Your task to perform on an android device: Go to network settings Image 0: 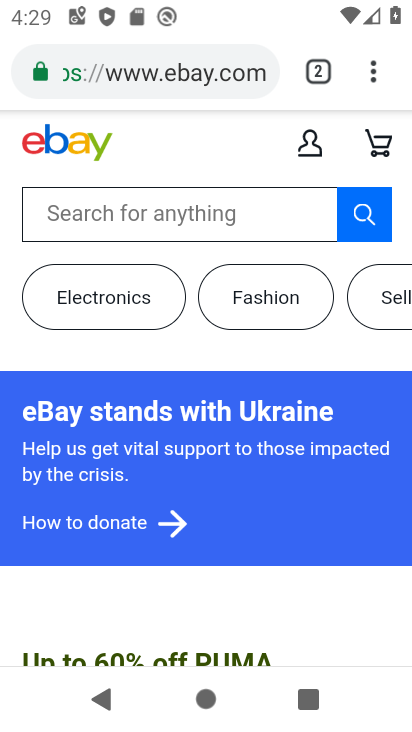
Step 0: press home button
Your task to perform on an android device: Go to network settings Image 1: 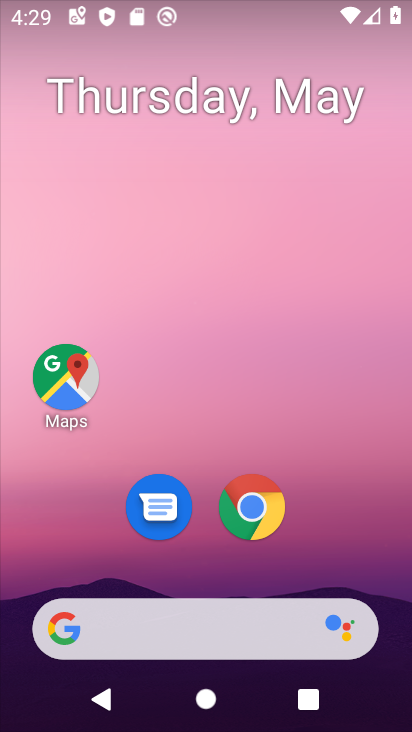
Step 1: drag from (209, 565) to (245, 68)
Your task to perform on an android device: Go to network settings Image 2: 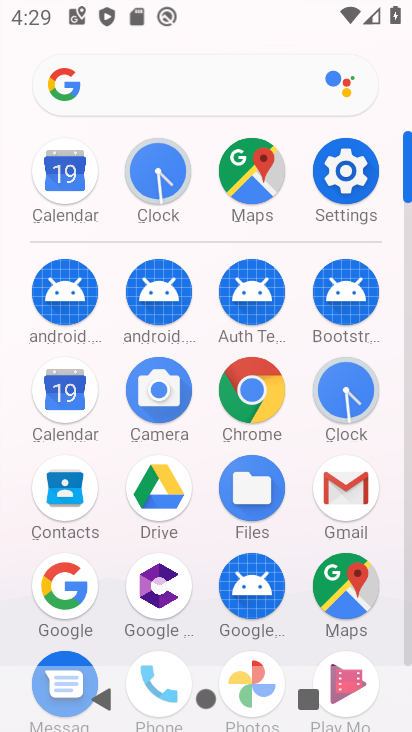
Step 2: click (345, 172)
Your task to perform on an android device: Go to network settings Image 3: 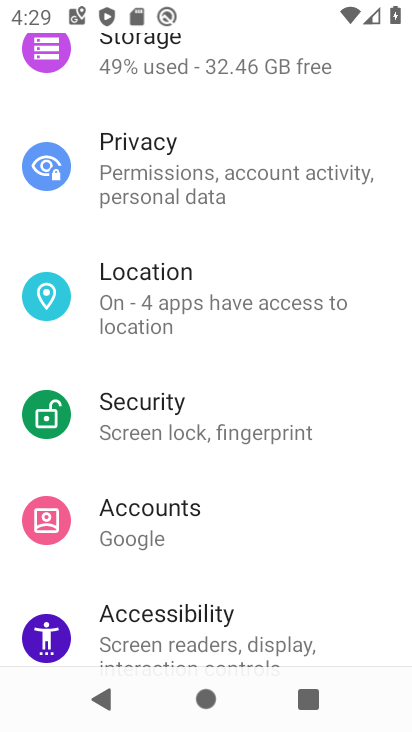
Step 3: drag from (227, 259) to (259, 609)
Your task to perform on an android device: Go to network settings Image 4: 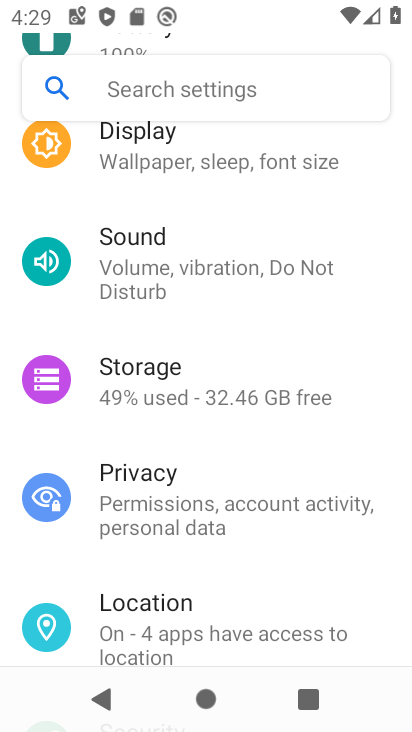
Step 4: drag from (290, 251) to (235, 624)
Your task to perform on an android device: Go to network settings Image 5: 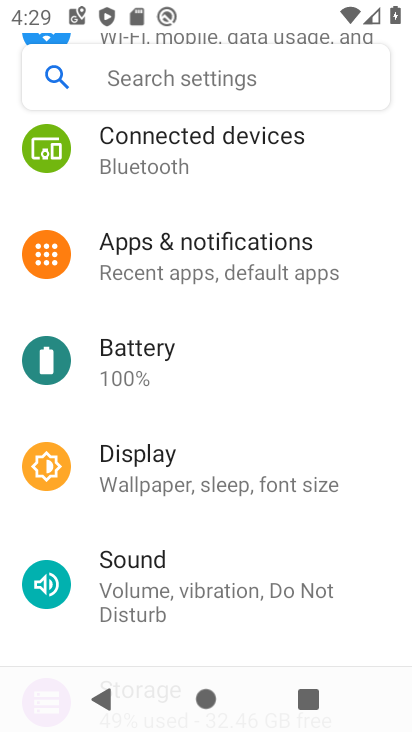
Step 5: drag from (241, 225) to (268, 599)
Your task to perform on an android device: Go to network settings Image 6: 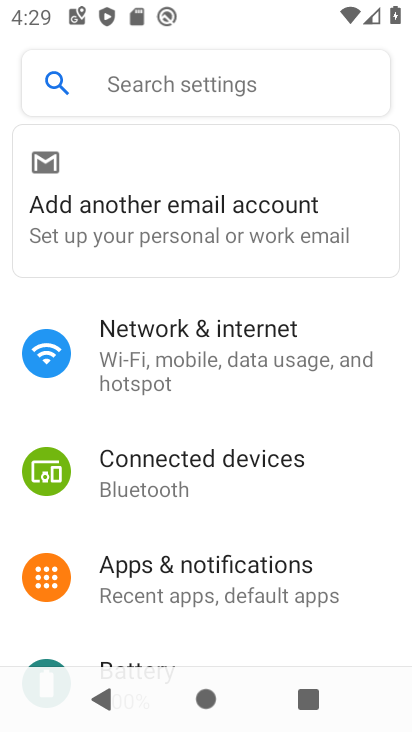
Step 6: click (182, 328)
Your task to perform on an android device: Go to network settings Image 7: 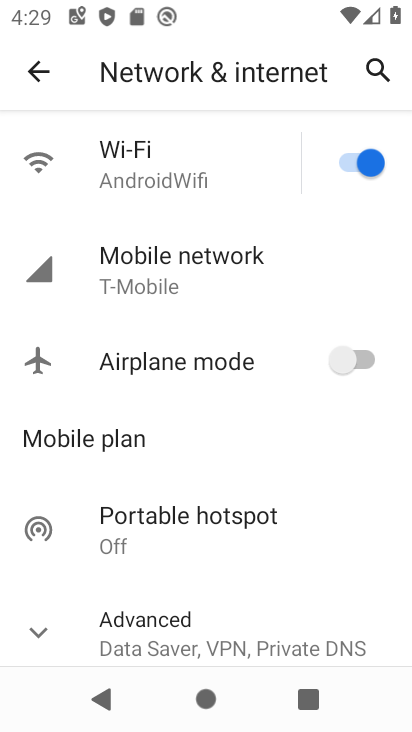
Step 7: click (197, 295)
Your task to perform on an android device: Go to network settings Image 8: 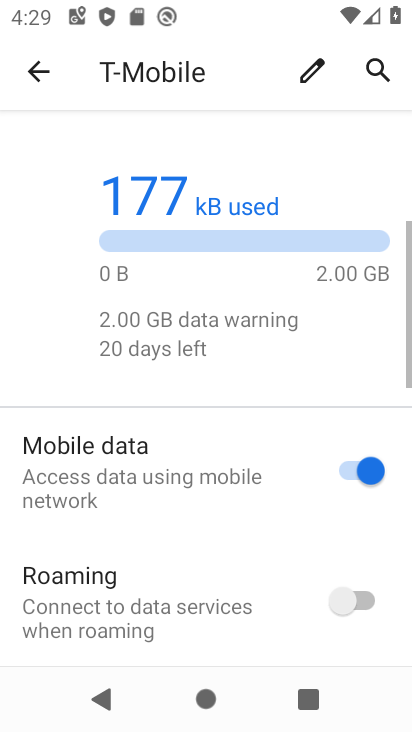
Step 8: task complete